Your task to perform on an android device: Open Google Chrome and open the bookmarks view Image 0: 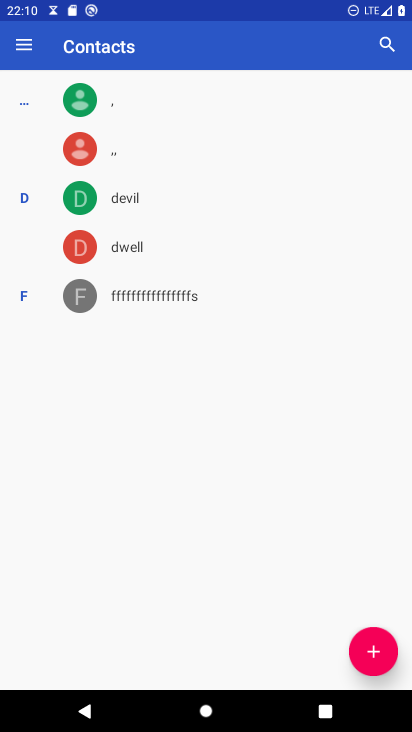
Step 0: press home button
Your task to perform on an android device: Open Google Chrome and open the bookmarks view Image 1: 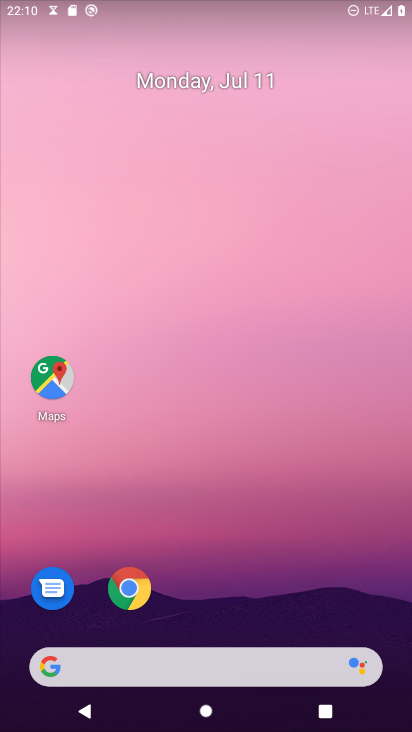
Step 1: click (130, 597)
Your task to perform on an android device: Open Google Chrome and open the bookmarks view Image 2: 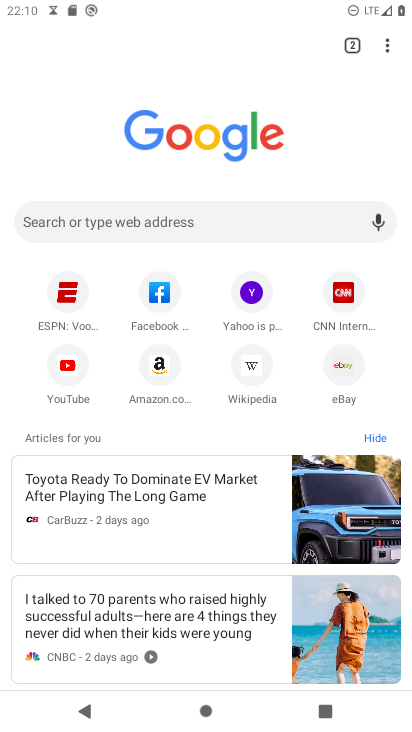
Step 2: task complete